Your task to perform on an android device: check android version Image 0: 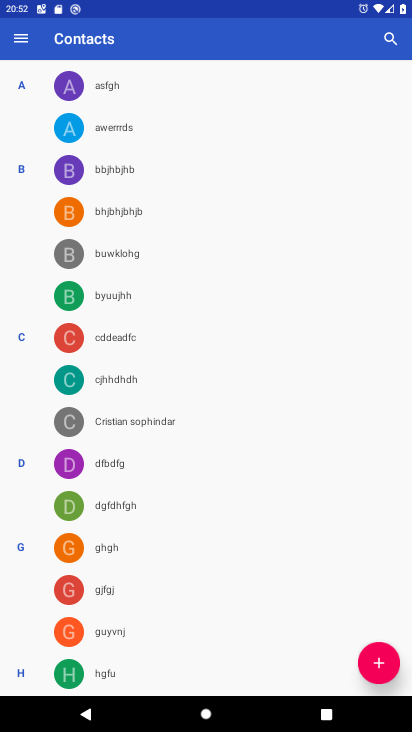
Step 0: press home button
Your task to perform on an android device: check android version Image 1: 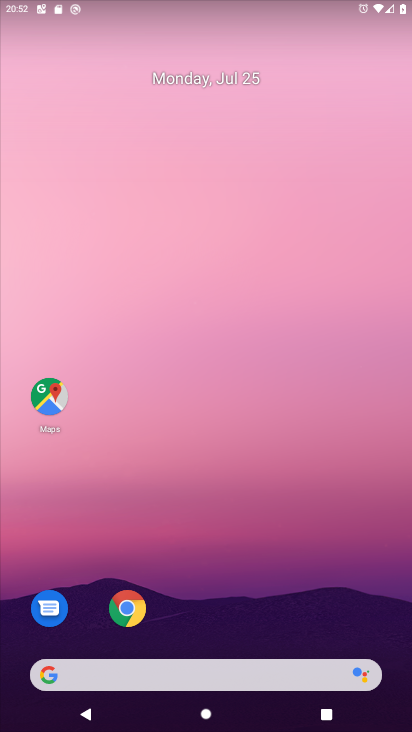
Step 1: drag from (244, 634) to (244, 16)
Your task to perform on an android device: check android version Image 2: 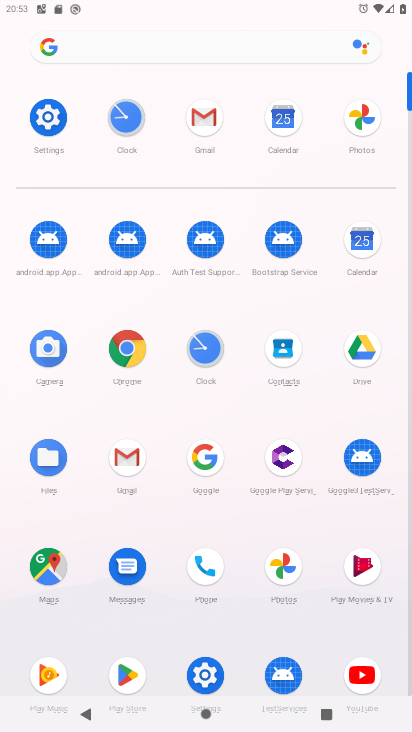
Step 2: click (207, 663)
Your task to perform on an android device: check android version Image 3: 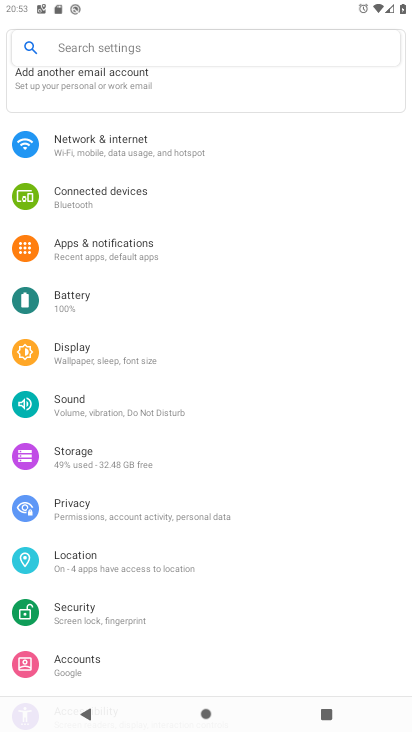
Step 3: drag from (191, 617) to (200, 19)
Your task to perform on an android device: check android version Image 4: 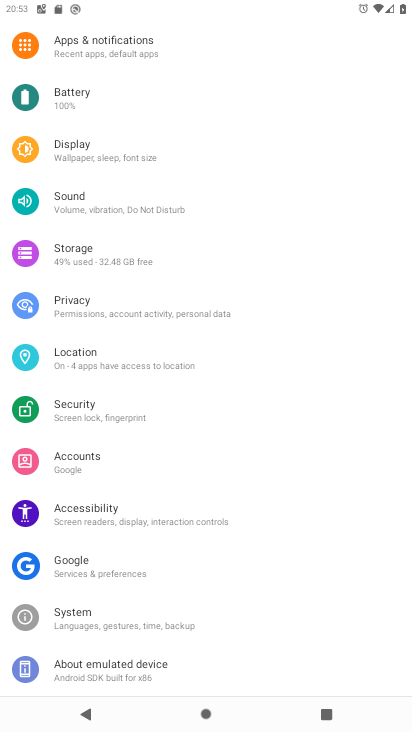
Step 4: click (96, 659)
Your task to perform on an android device: check android version Image 5: 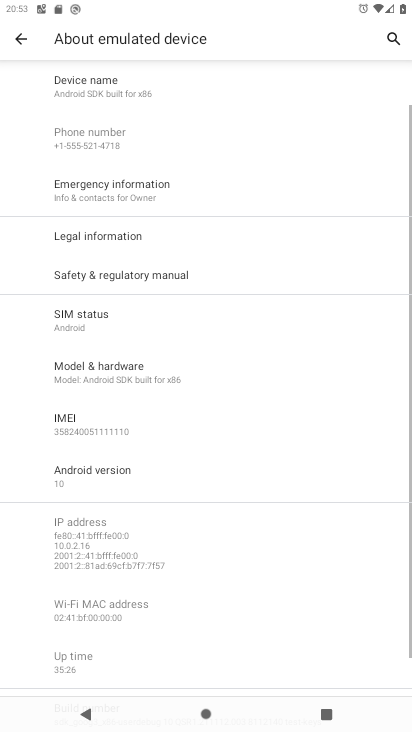
Step 5: click (130, 488)
Your task to perform on an android device: check android version Image 6: 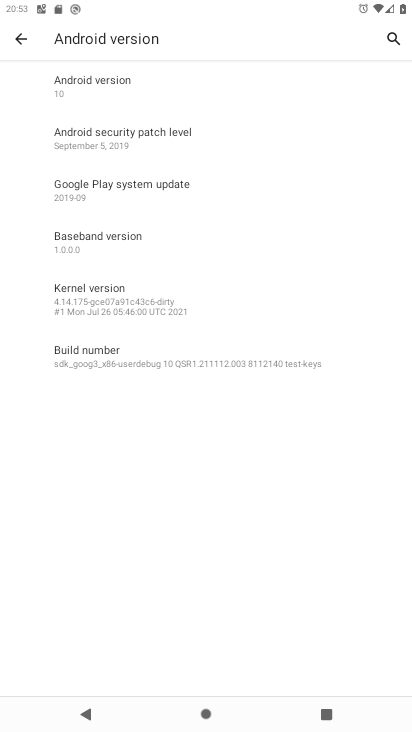
Step 6: click (133, 74)
Your task to perform on an android device: check android version Image 7: 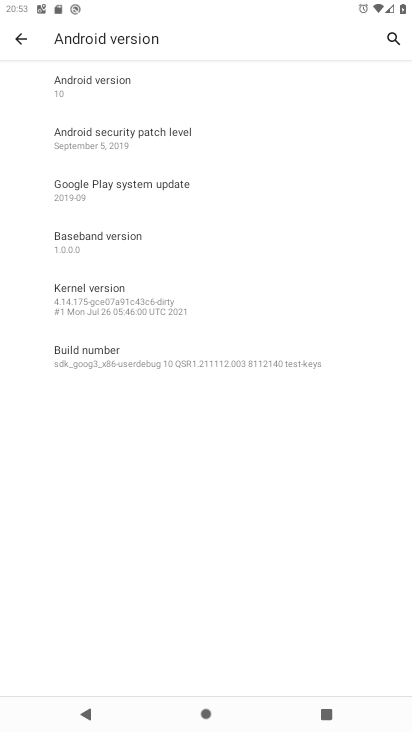
Step 7: task complete